Your task to perform on an android device: What's on my calendar tomorrow? Image 0: 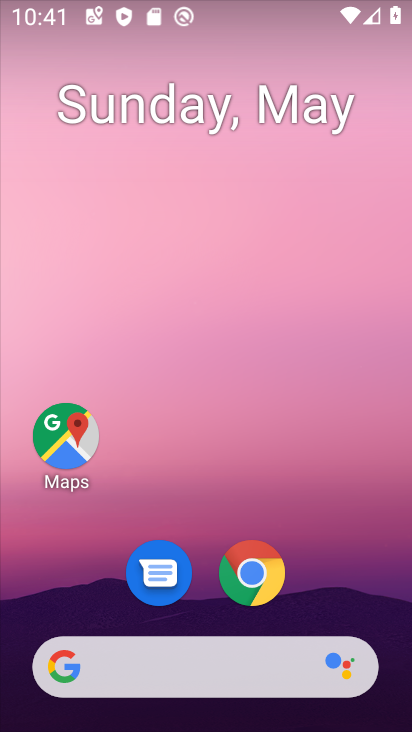
Step 0: drag from (231, 448) to (230, 205)
Your task to perform on an android device: What's on my calendar tomorrow? Image 1: 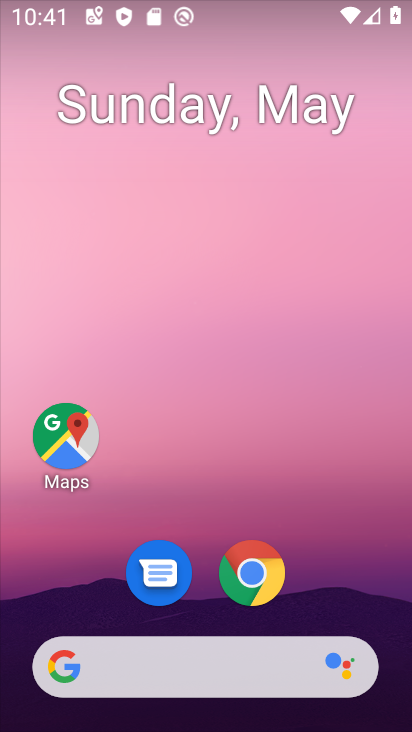
Step 1: drag from (190, 579) to (172, 166)
Your task to perform on an android device: What's on my calendar tomorrow? Image 2: 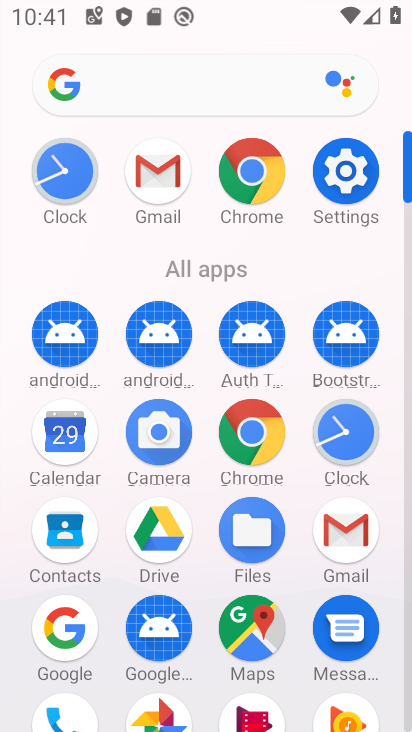
Step 2: click (58, 435)
Your task to perform on an android device: What's on my calendar tomorrow? Image 3: 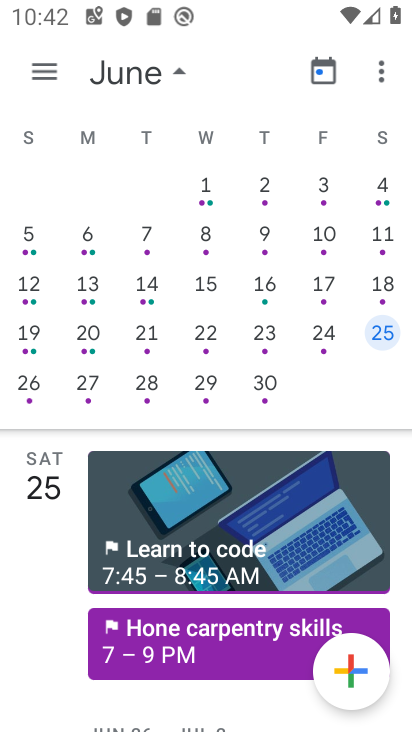
Step 3: click (42, 382)
Your task to perform on an android device: What's on my calendar tomorrow? Image 4: 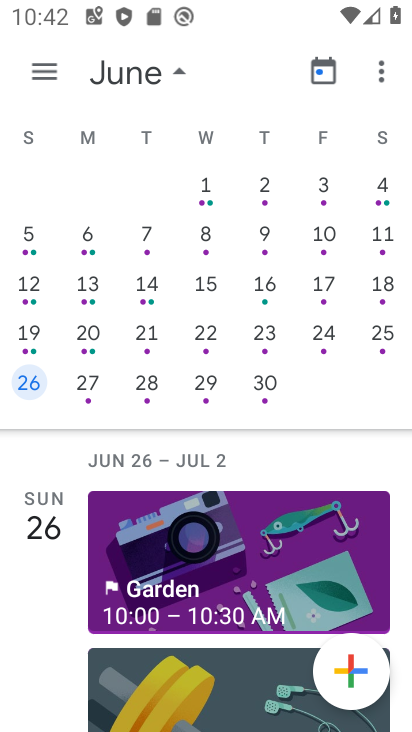
Step 4: task complete